Your task to perform on an android device: open sync settings in chrome Image 0: 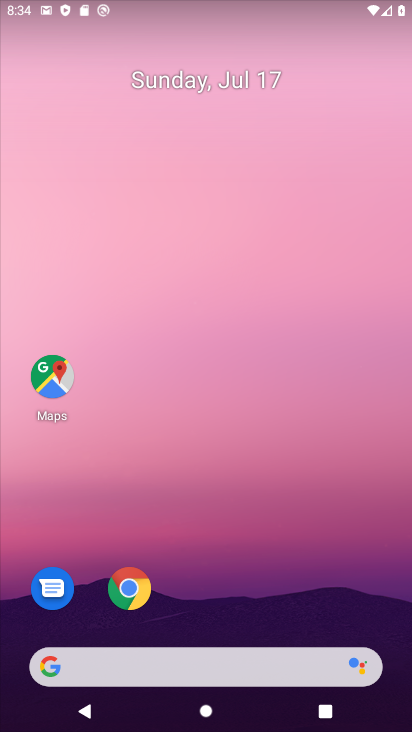
Step 0: press home button
Your task to perform on an android device: open sync settings in chrome Image 1: 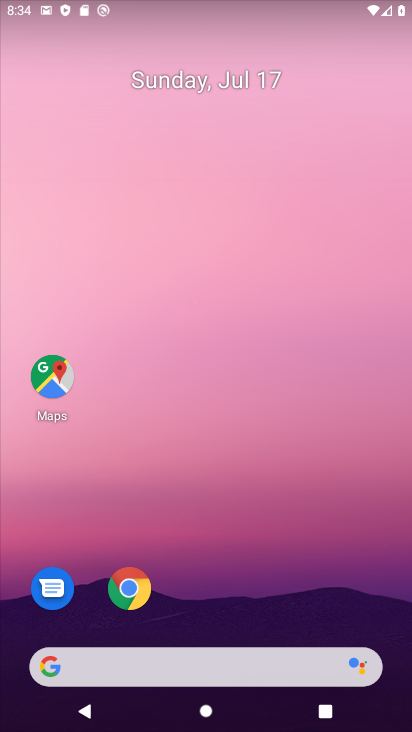
Step 1: drag from (239, 592) to (209, 0)
Your task to perform on an android device: open sync settings in chrome Image 2: 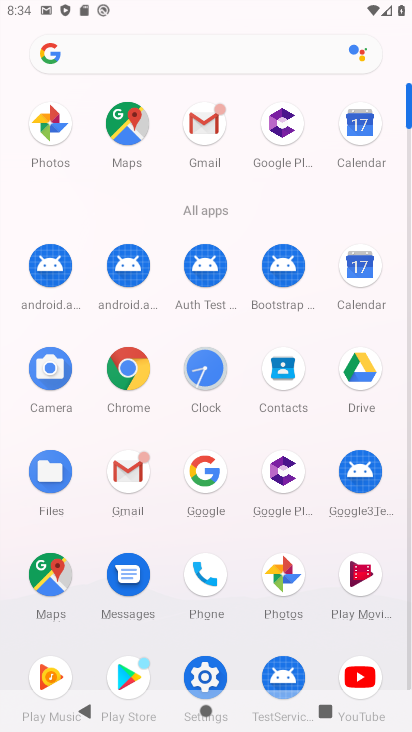
Step 2: click (130, 371)
Your task to perform on an android device: open sync settings in chrome Image 3: 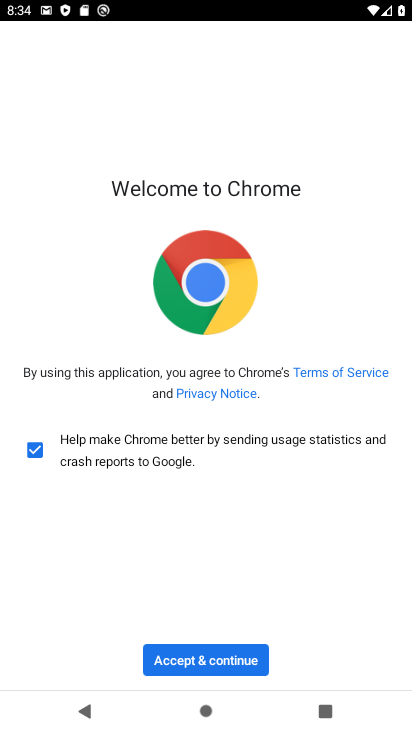
Step 3: click (211, 666)
Your task to perform on an android device: open sync settings in chrome Image 4: 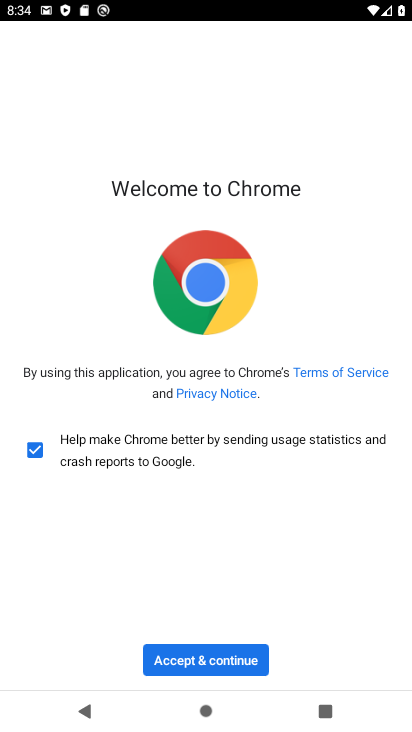
Step 4: click (210, 665)
Your task to perform on an android device: open sync settings in chrome Image 5: 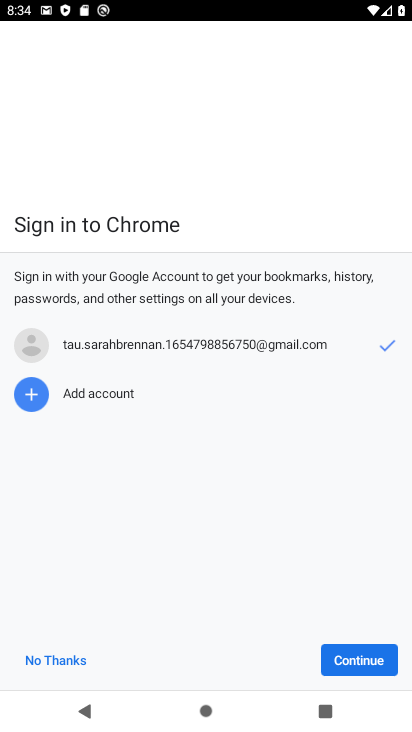
Step 5: click (210, 665)
Your task to perform on an android device: open sync settings in chrome Image 6: 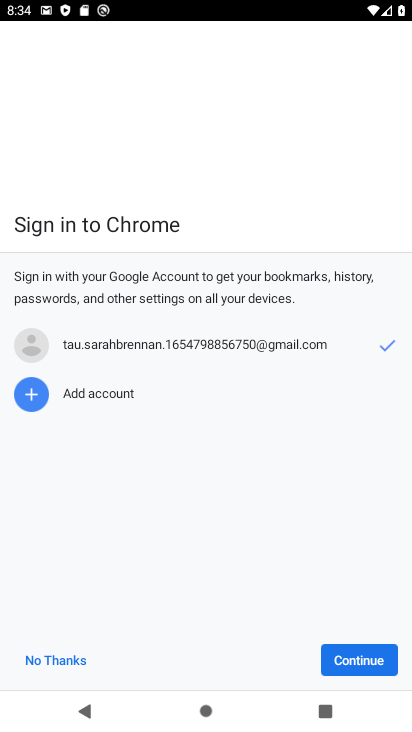
Step 6: click (353, 668)
Your task to perform on an android device: open sync settings in chrome Image 7: 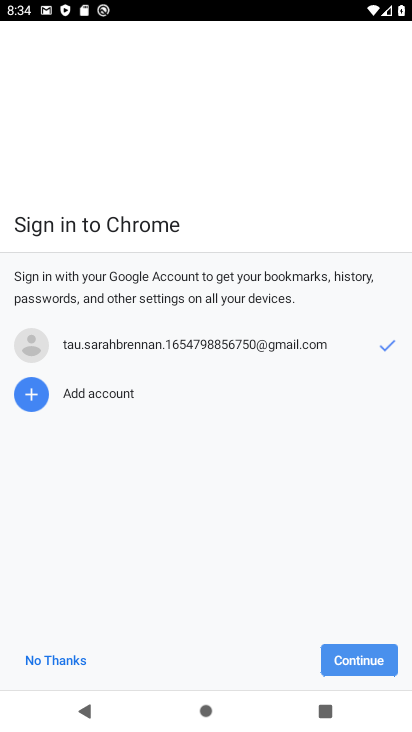
Step 7: click (353, 668)
Your task to perform on an android device: open sync settings in chrome Image 8: 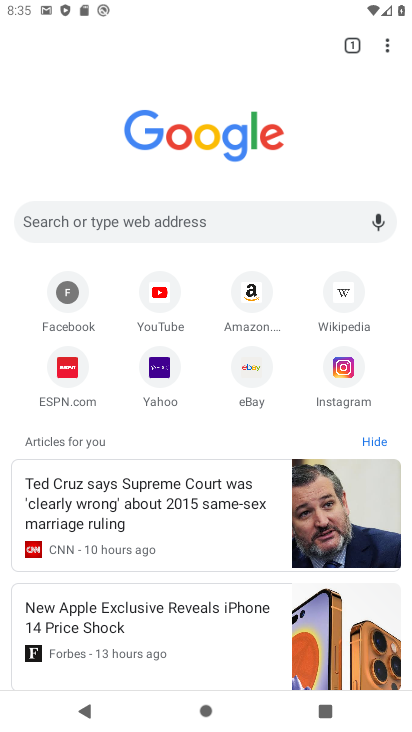
Step 8: drag from (393, 44) to (221, 382)
Your task to perform on an android device: open sync settings in chrome Image 9: 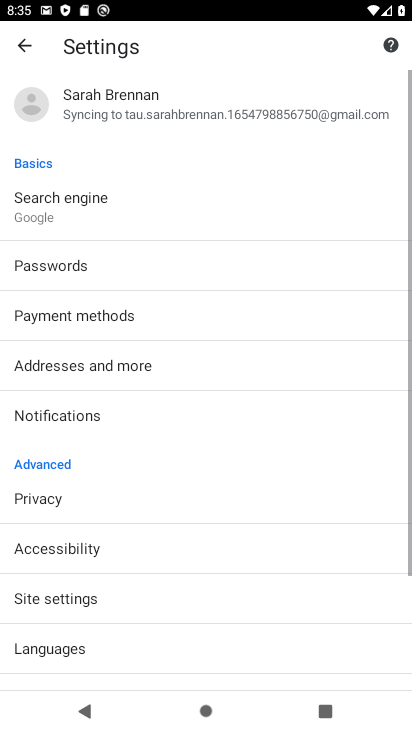
Step 9: click (118, 120)
Your task to perform on an android device: open sync settings in chrome Image 10: 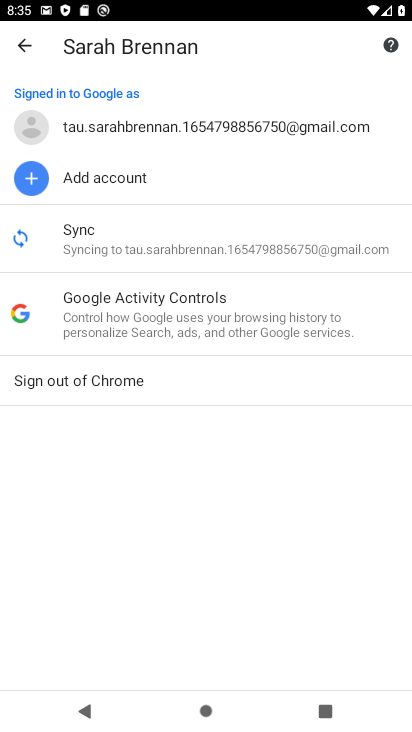
Step 10: click (118, 232)
Your task to perform on an android device: open sync settings in chrome Image 11: 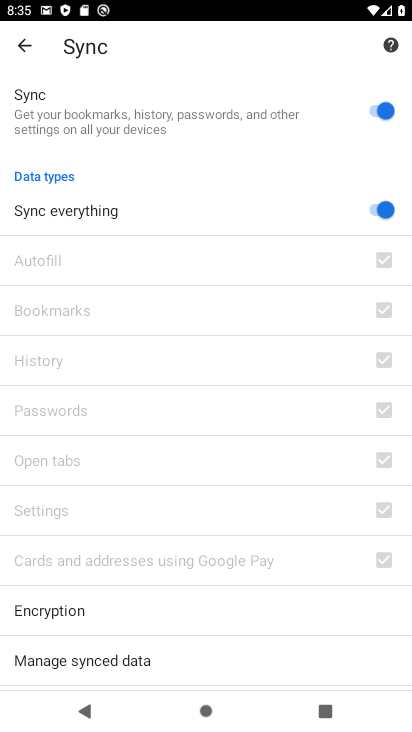
Step 11: task complete